Your task to perform on an android device: Go to privacy settings Image 0: 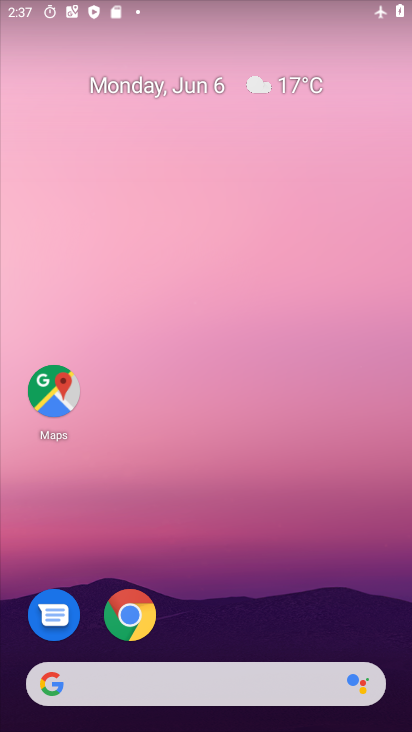
Step 0: click (296, 161)
Your task to perform on an android device: Go to privacy settings Image 1: 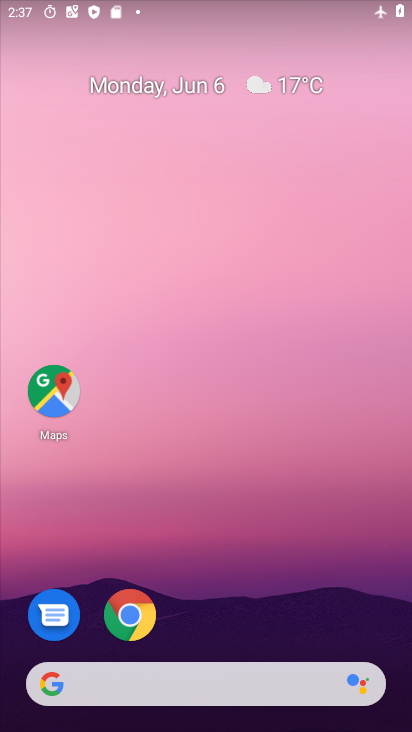
Step 1: drag from (208, 621) to (286, 193)
Your task to perform on an android device: Go to privacy settings Image 2: 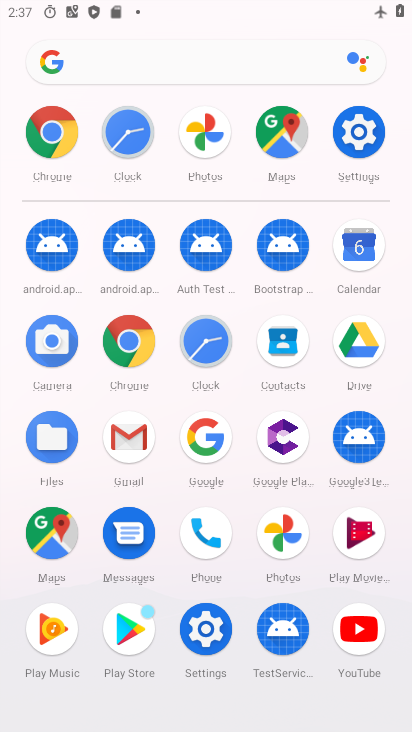
Step 2: click (359, 138)
Your task to perform on an android device: Go to privacy settings Image 3: 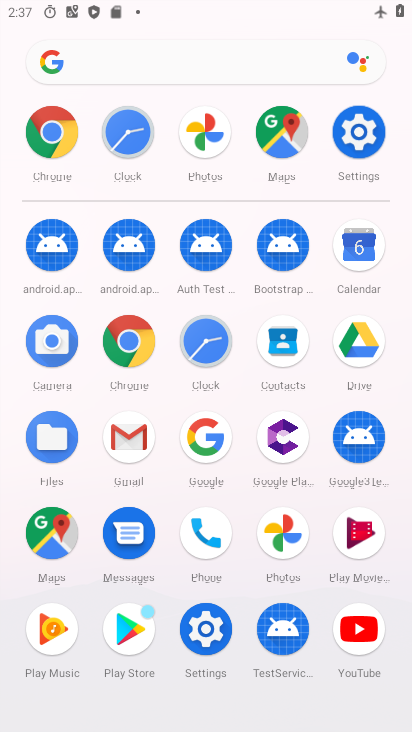
Step 3: click (359, 137)
Your task to perform on an android device: Go to privacy settings Image 4: 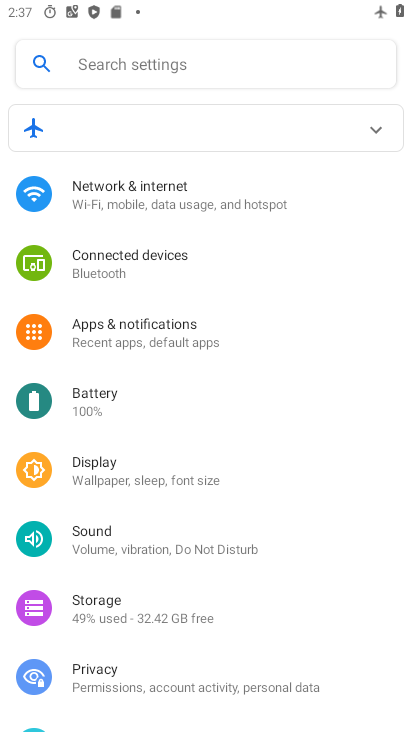
Step 4: drag from (177, 609) to (245, 182)
Your task to perform on an android device: Go to privacy settings Image 5: 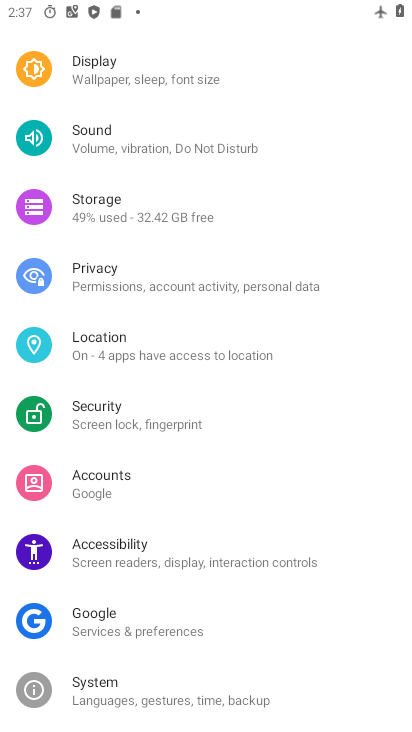
Step 5: drag from (150, 637) to (216, 298)
Your task to perform on an android device: Go to privacy settings Image 6: 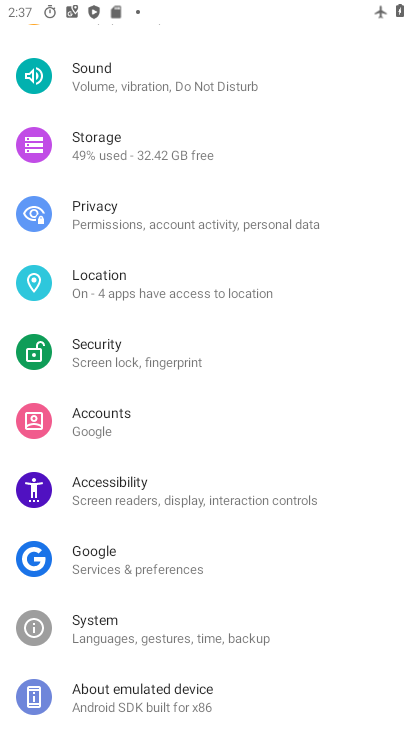
Step 6: click (103, 218)
Your task to perform on an android device: Go to privacy settings Image 7: 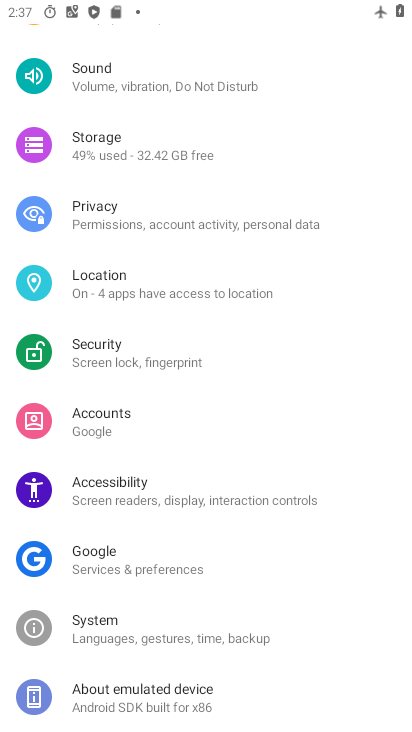
Step 7: click (103, 217)
Your task to perform on an android device: Go to privacy settings Image 8: 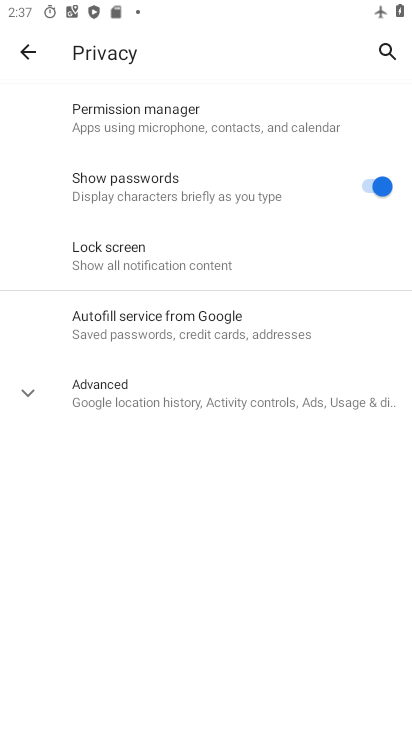
Step 8: task complete